Your task to perform on an android device: open app "Spotify" (install if not already installed) and enter user name: "infallible@icloud.com" and password: "implored" Image 0: 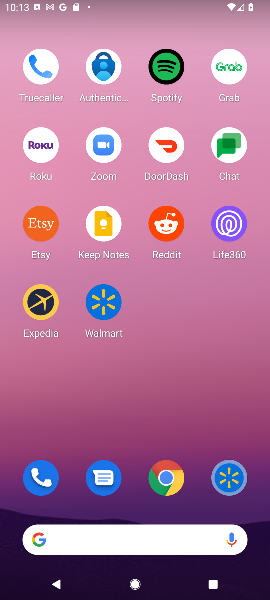
Step 0: drag from (132, 515) to (132, 486)
Your task to perform on an android device: open app "Spotify" (install if not already installed) and enter user name: "infallible@icloud.com" and password: "implored" Image 1: 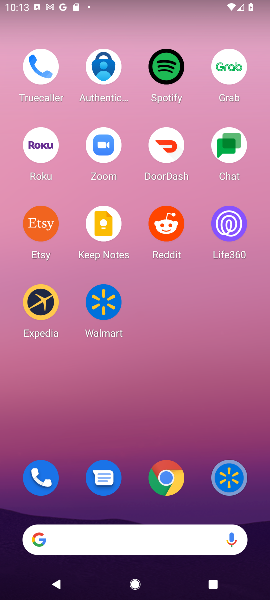
Step 1: click (172, 51)
Your task to perform on an android device: open app "Spotify" (install if not already installed) and enter user name: "infallible@icloud.com" and password: "implored" Image 2: 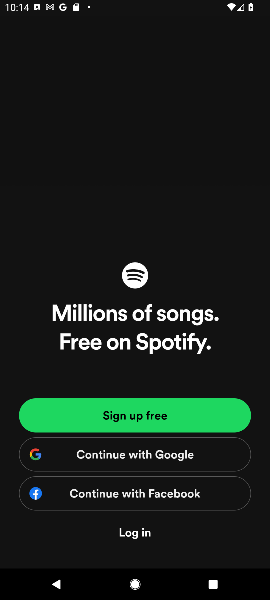
Step 2: click (123, 527)
Your task to perform on an android device: open app "Spotify" (install if not already installed) and enter user name: "infallible@icloud.com" and password: "implored" Image 3: 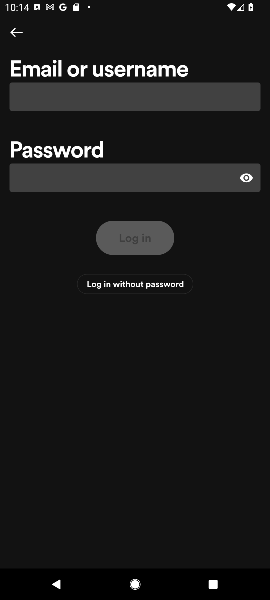
Step 3: click (123, 101)
Your task to perform on an android device: open app "Spotify" (install if not already installed) and enter user name: "infallible@icloud.com" and password: "implored" Image 4: 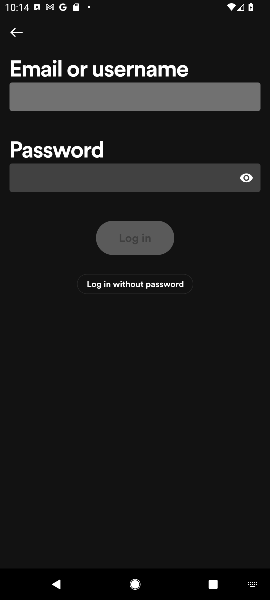
Step 4: type "infallible@icloud.com"
Your task to perform on an android device: open app "Spotify" (install if not already installed) and enter user name: "infallible@icloud.com" and password: "implored" Image 5: 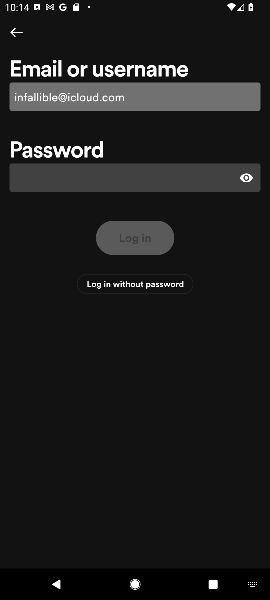
Step 5: click (142, 189)
Your task to perform on an android device: open app "Spotify" (install if not already installed) and enter user name: "infallible@icloud.com" and password: "implored" Image 6: 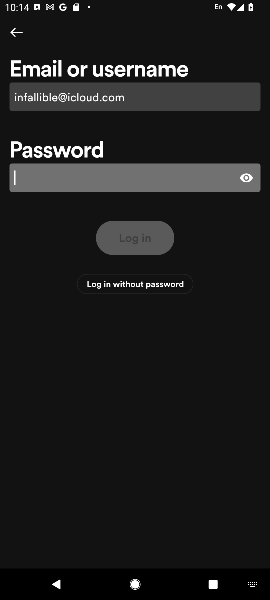
Step 6: type "implored"
Your task to perform on an android device: open app "Spotify" (install if not already installed) and enter user name: "infallible@icloud.com" and password: "implored" Image 7: 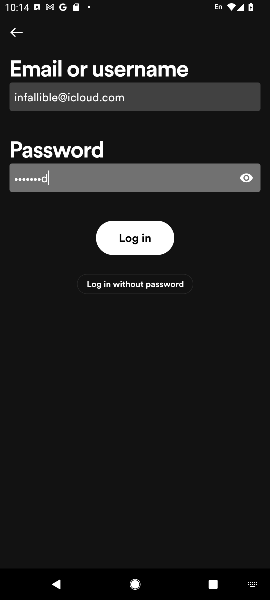
Step 7: click (114, 242)
Your task to perform on an android device: open app "Spotify" (install if not already installed) and enter user name: "infallible@icloud.com" and password: "implored" Image 8: 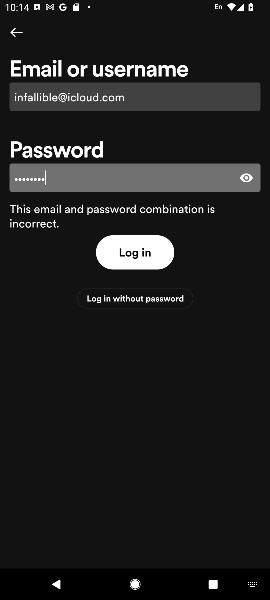
Step 8: task complete